Your task to perform on an android device: clear all cookies in the chrome app Image 0: 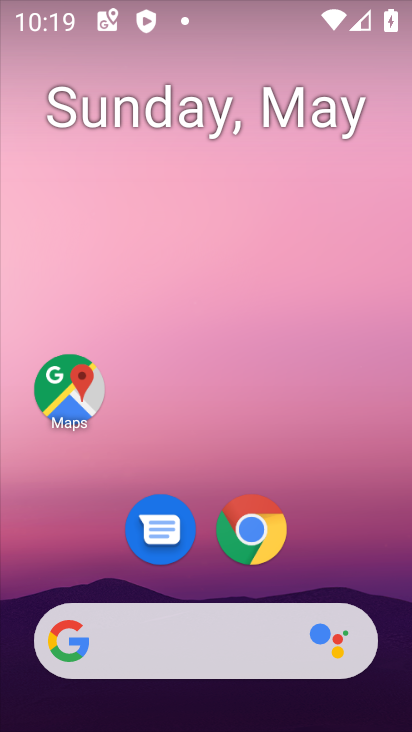
Step 0: click (259, 551)
Your task to perform on an android device: clear all cookies in the chrome app Image 1: 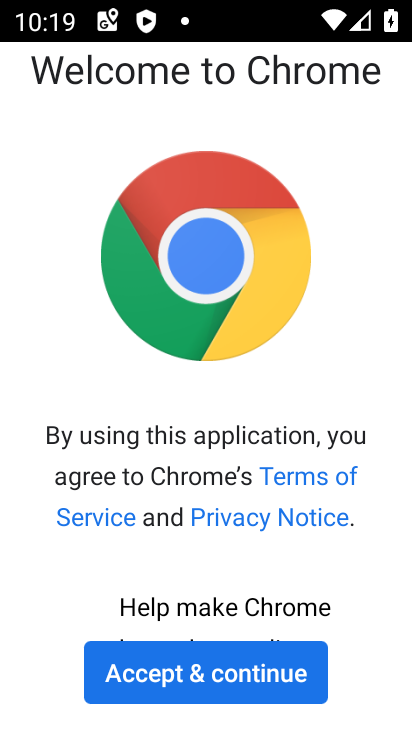
Step 1: click (262, 684)
Your task to perform on an android device: clear all cookies in the chrome app Image 2: 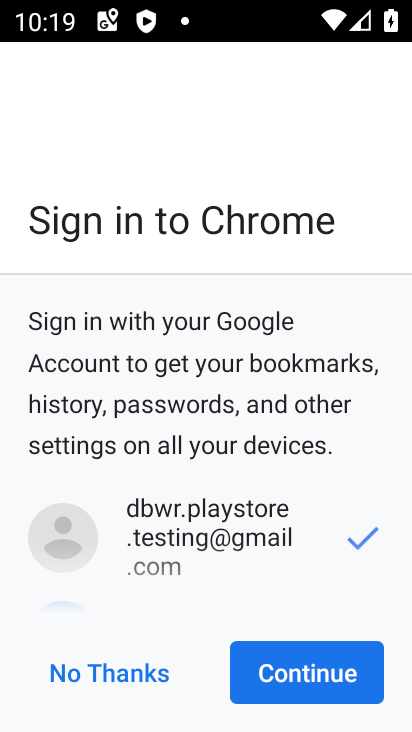
Step 2: click (262, 684)
Your task to perform on an android device: clear all cookies in the chrome app Image 3: 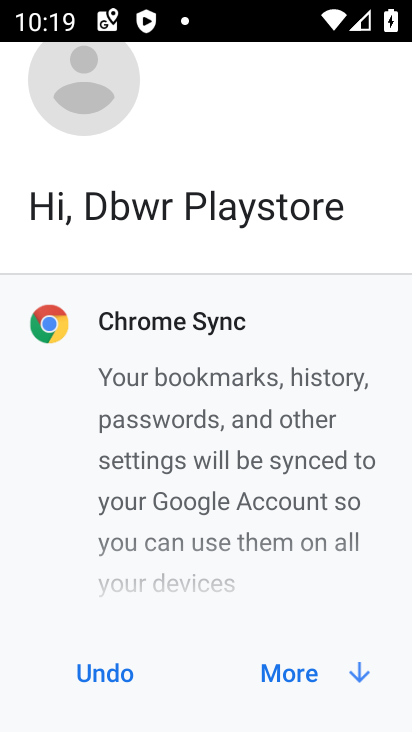
Step 3: click (262, 684)
Your task to perform on an android device: clear all cookies in the chrome app Image 4: 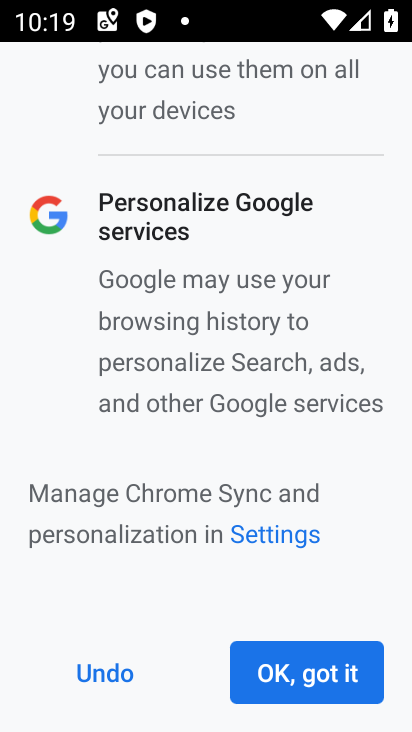
Step 4: click (262, 684)
Your task to perform on an android device: clear all cookies in the chrome app Image 5: 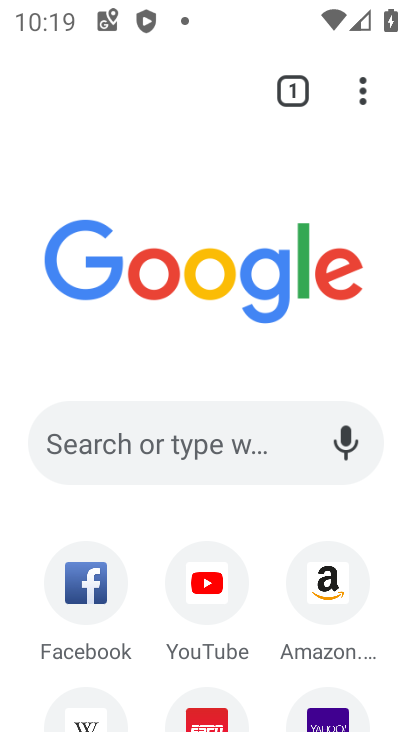
Step 5: task complete